Your task to perform on an android device: Open accessibility settings Image 0: 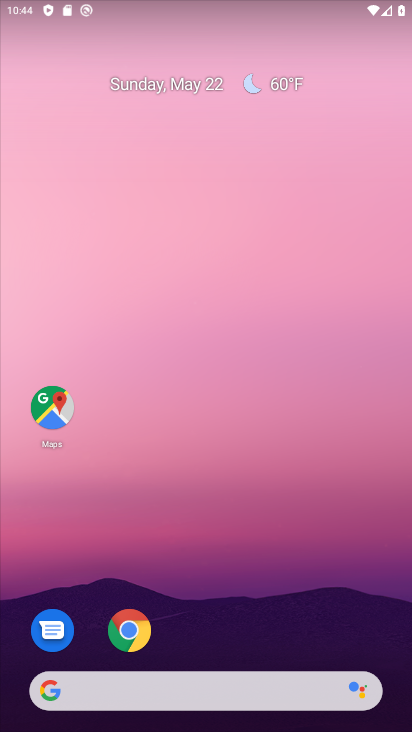
Step 0: drag from (265, 608) to (139, 98)
Your task to perform on an android device: Open accessibility settings Image 1: 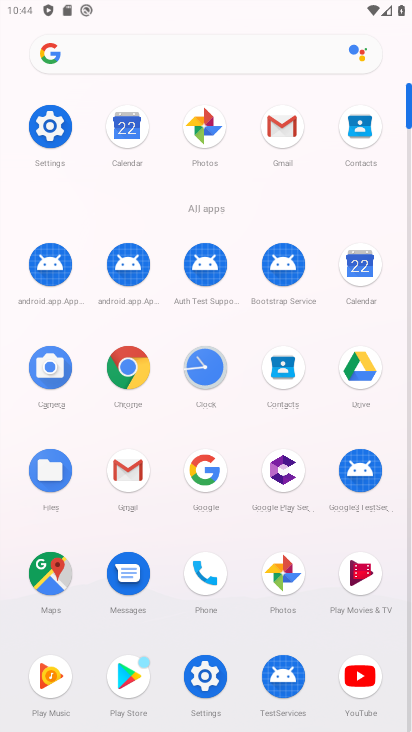
Step 1: click (52, 126)
Your task to perform on an android device: Open accessibility settings Image 2: 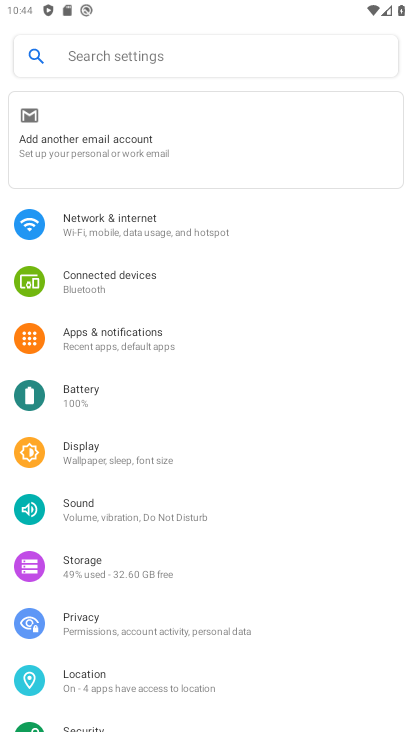
Step 2: drag from (136, 485) to (160, 410)
Your task to perform on an android device: Open accessibility settings Image 3: 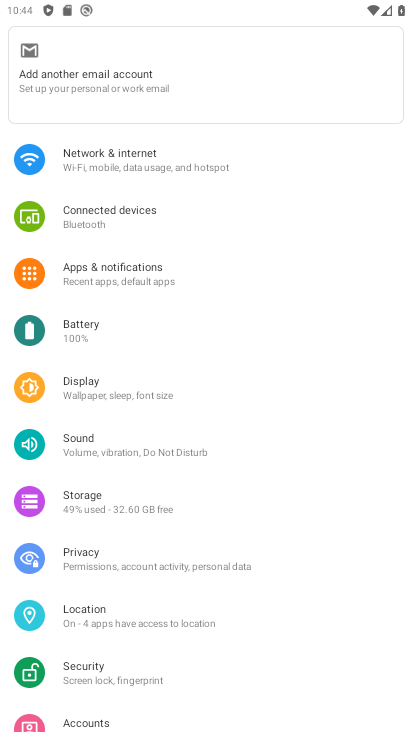
Step 3: drag from (115, 478) to (145, 417)
Your task to perform on an android device: Open accessibility settings Image 4: 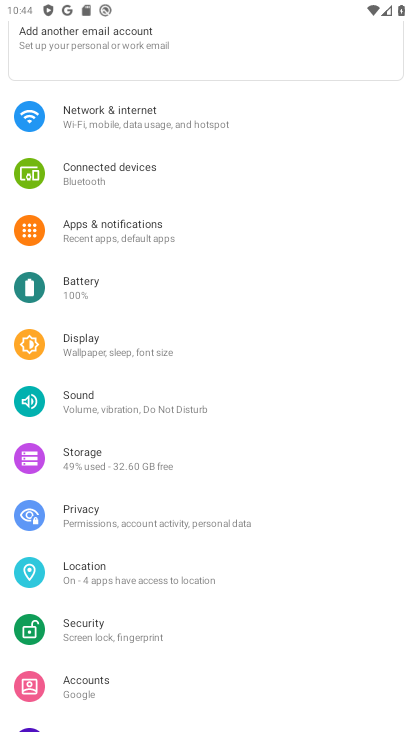
Step 4: drag from (101, 537) to (135, 474)
Your task to perform on an android device: Open accessibility settings Image 5: 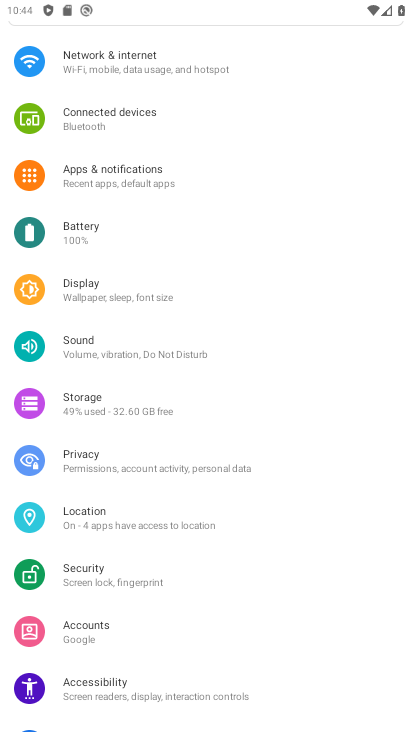
Step 5: drag from (77, 546) to (123, 471)
Your task to perform on an android device: Open accessibility settings Image 6: 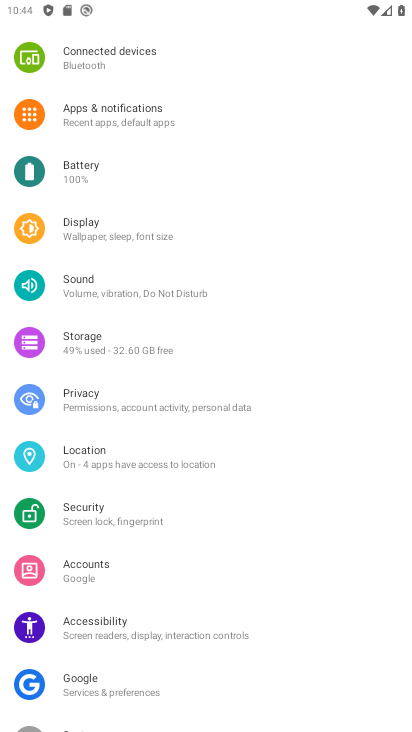
Step 6: drag from (77, 538) to (118, 460)
Your task to perform on an android device: Open accessibility settings Image 7: 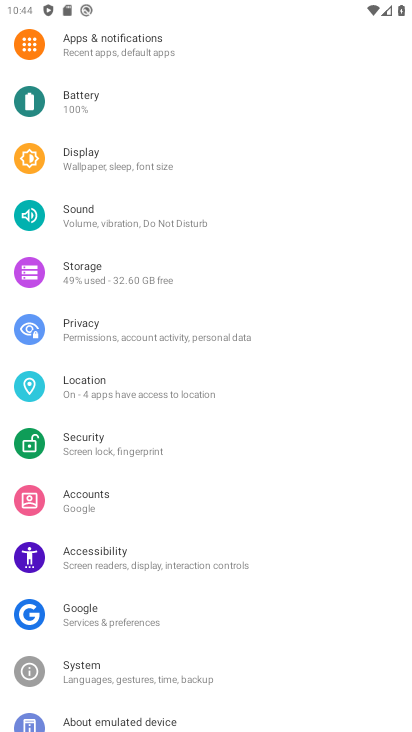
Step 7: click (81, 552)
Your task to perform on an android device: Open accessibility settings Image 8: 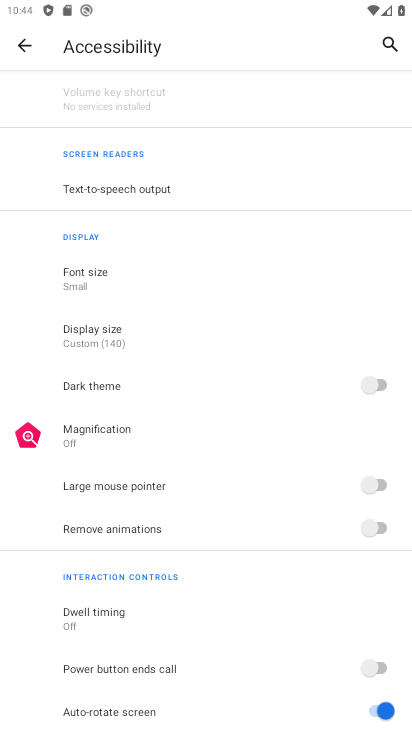
Step 8: task complete